Your task to perform on an android device: Go to ESPN.com Image 0: 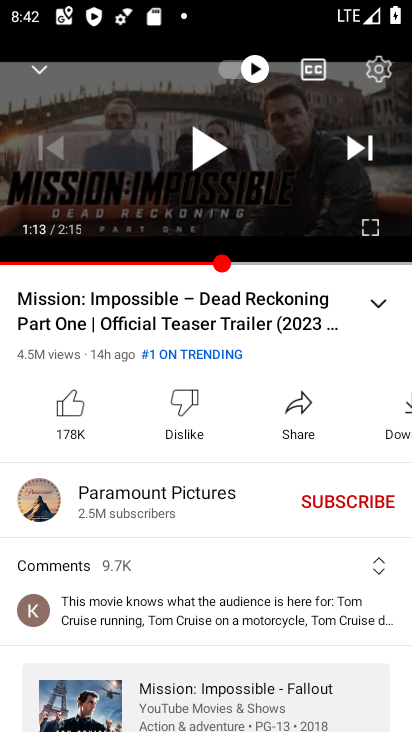
Step 0: press home button
Your task to perform on an android device: Go to ESPN.com Image 1: 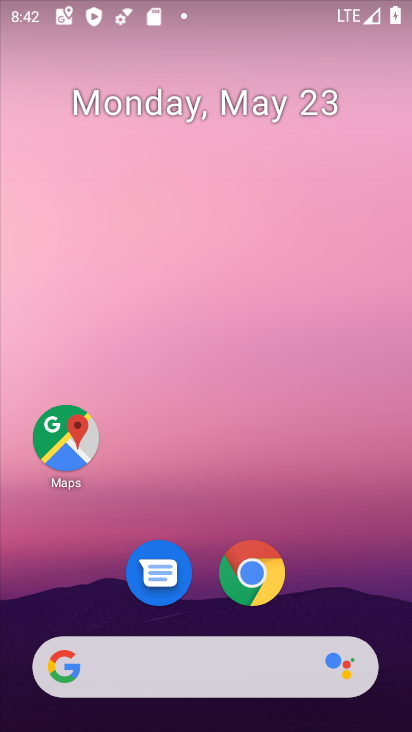
Step 1: click (269, 673)
Your task to perform on an android device: Go to ESPN.com Image 2: 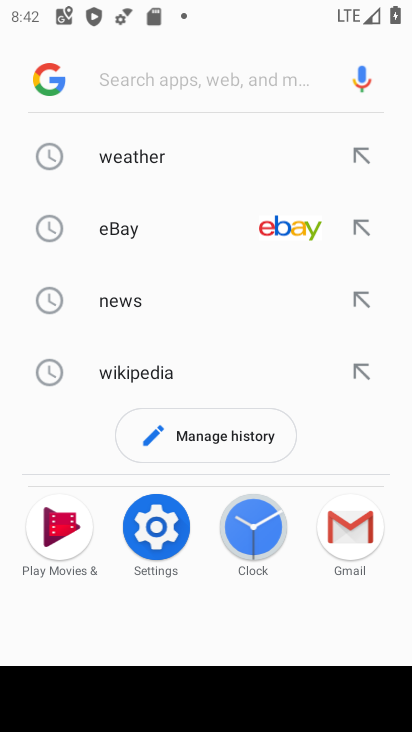
Step 2: type "espn.com"
Your task to perform on an android device: Go to ESPN.com Image 3: 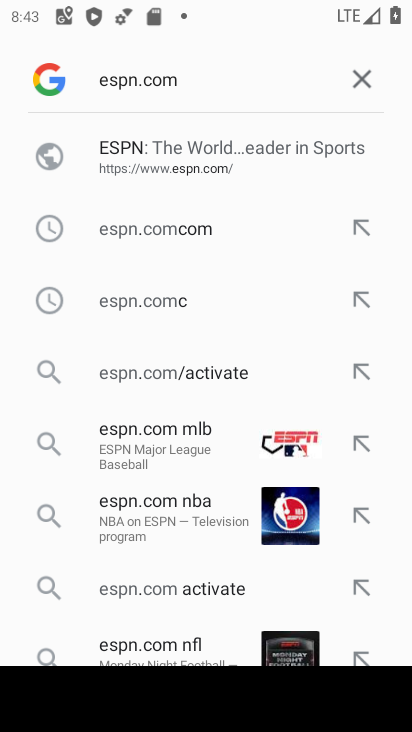
Step 3: click (96, 141)
Your task to perform on an android device: Go to ESPN.com Image 4: 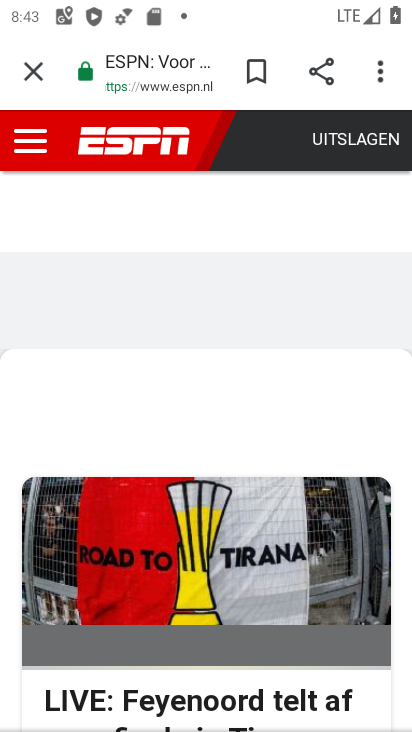
Step 4: task complete